Your task to perform on an android device: Go to location settings Image 0: 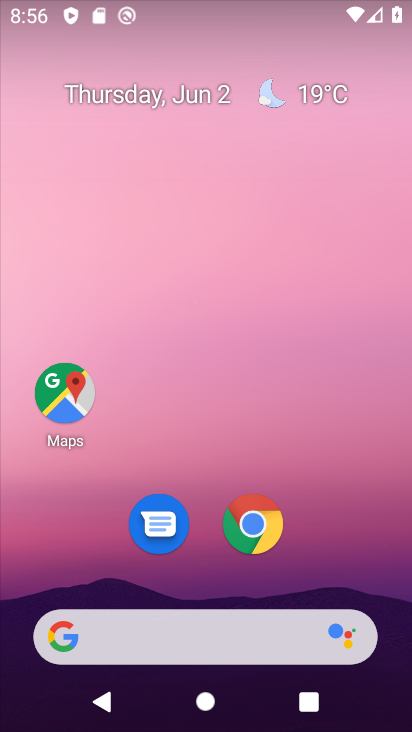
Step 0: drag from (347, 517) to (328, 0)
Your task to perform on an android device: Go to location settings Image 1: 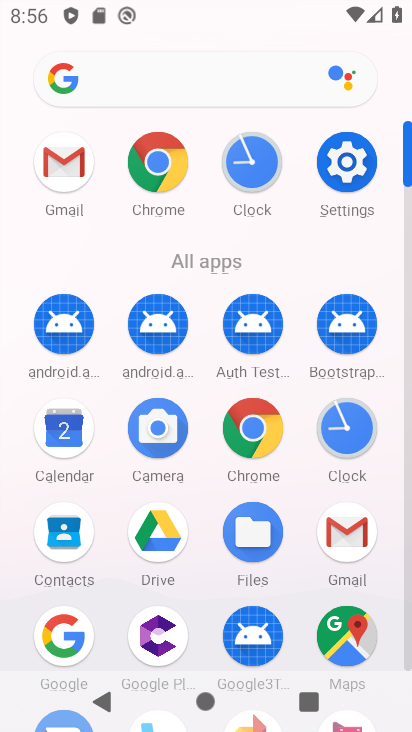
Step 1: click (345, 158)
Your task to perform on an android device: Go to location settings Image 2: 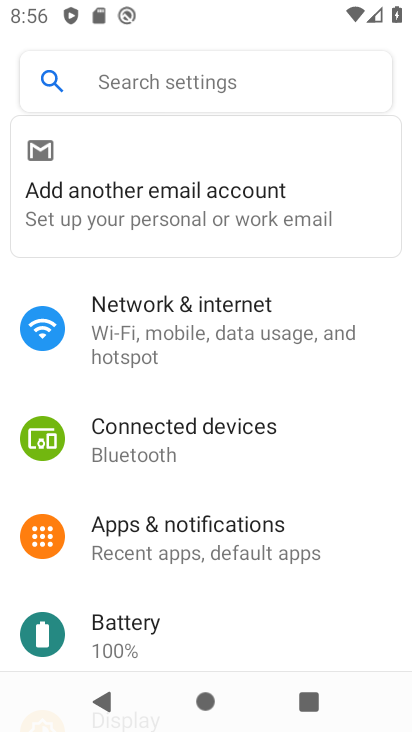
Step 2: drag from (232, 593) to (300, 61)
Your task to perform on an android device: Go to location settings Image 3: 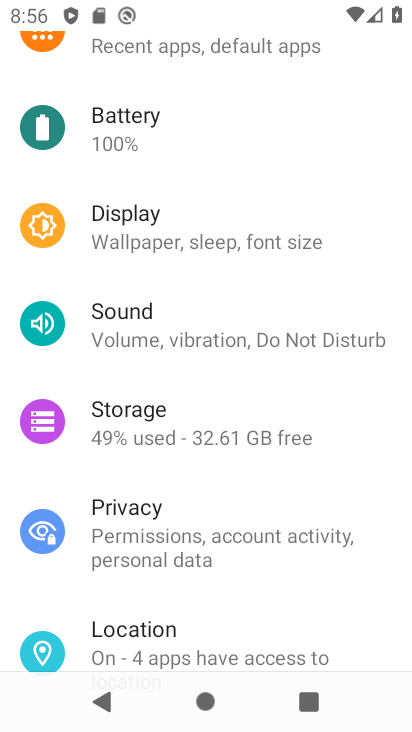
Step 3: click (231, 636)
Your task to perform on an android device: Go to location settings Image 4: 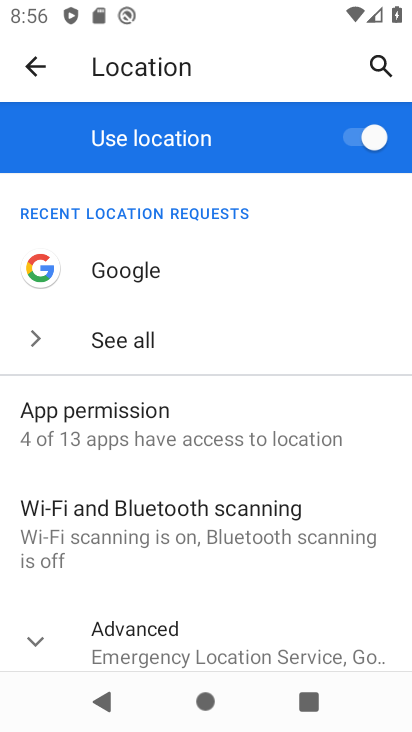
Step 4: task complete